Your task to perform on an android device: toggle notification dots Image 0: 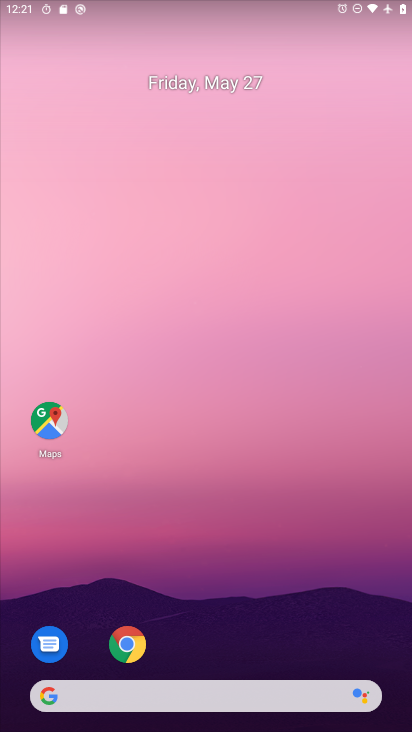
Step 0: drag from (252, 648) to (205, 349)
Your task to perform on an android device: toggle notification dots Image 1: 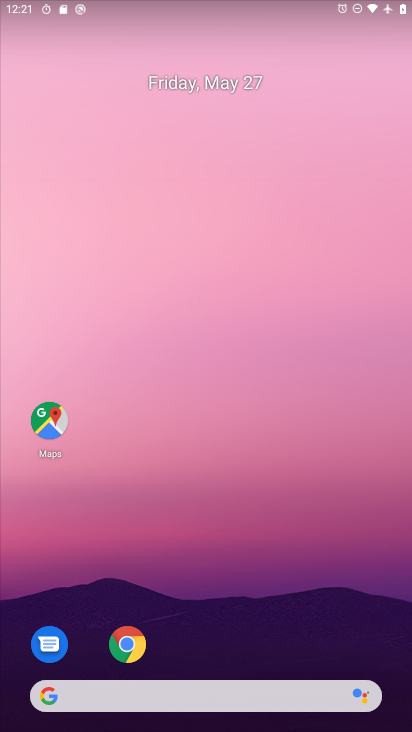
Step 1: drag from (221, 632) to (188, 166)
Your task to perform on an android device: toggle notification dots Image 2: 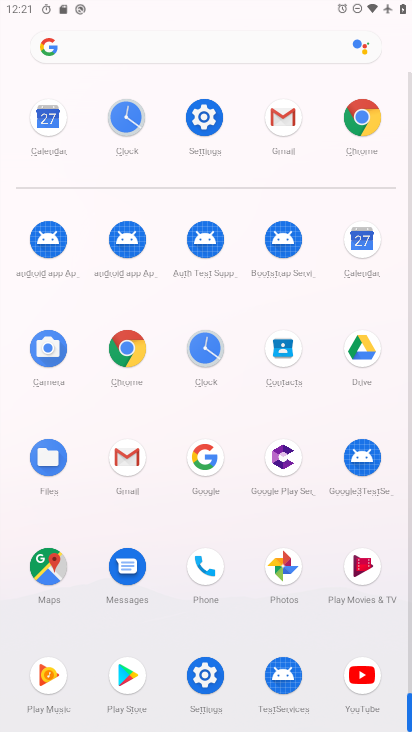
Step 2: click (217, 102)
Your task to perform on an android device: toggle notification dots Image 3: 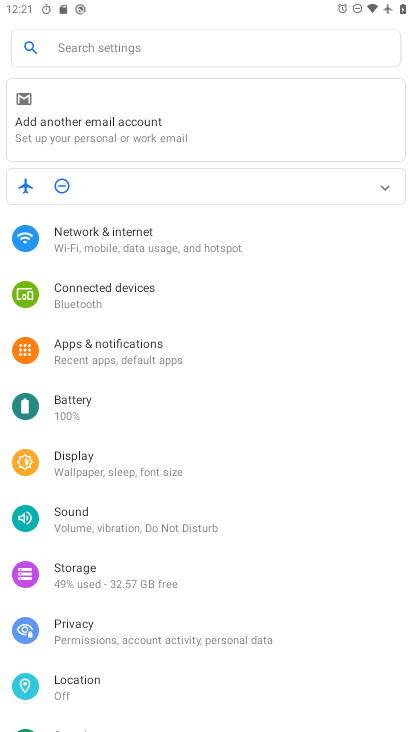
Step 3: click (147, 352)
Your task to perform on an android device: toggle notification dots Image 4: 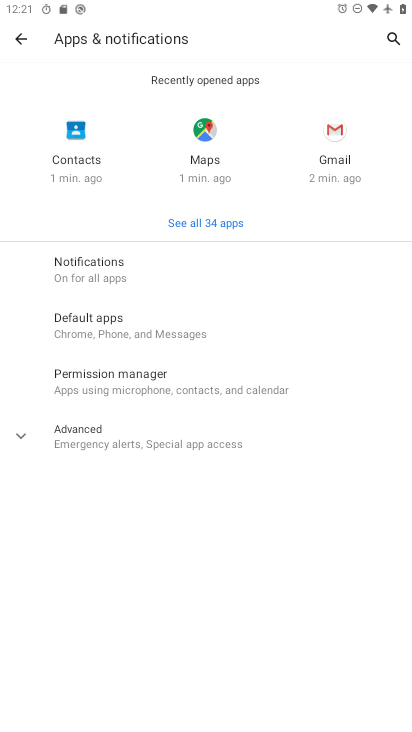
Step 4: click (124, 274)
Your task to perform on an android device: toggle notification dots Image 5: 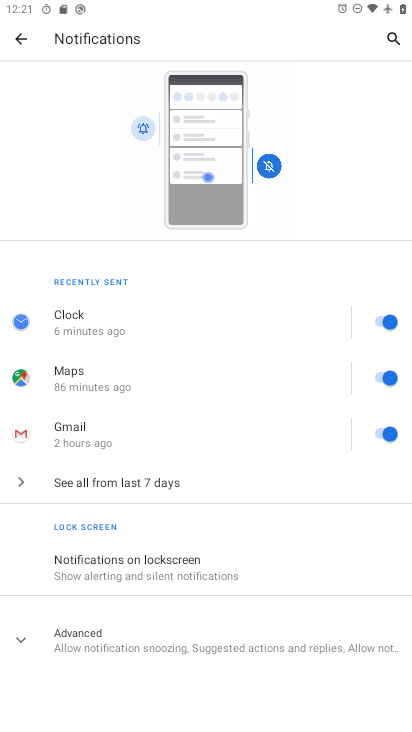
Step 5: drag from (295, 655) to (270, 339)
Your task to perform on an android device: toggle notification dots Image 6: 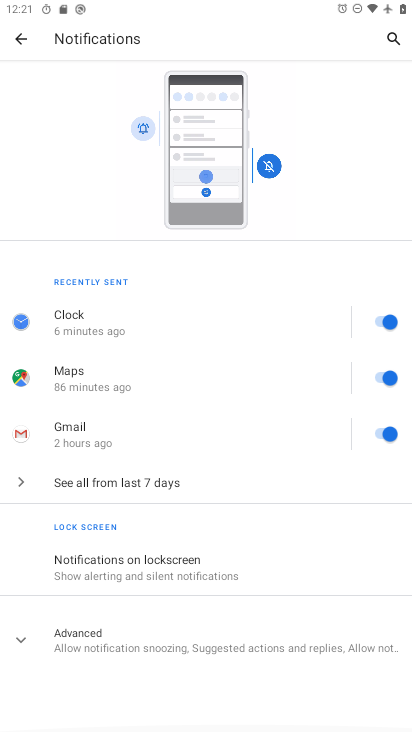
Step 6: click (190, 620)
Your task to perform on an android device: toggle notification dots Image 7: 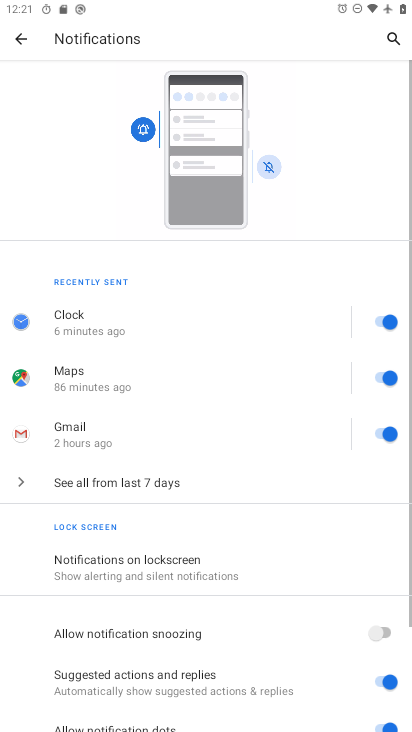
Step 7: drag from (257, 666) to (276, 373)
Your task to perform on an android device: toggle notification dots Image 8: 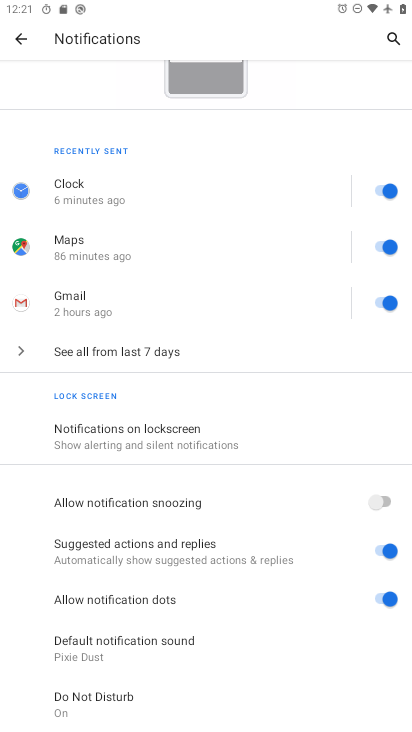
Step 8: click (379, 599)
Your task to perform on an android device: toggle notification dots Image 9: 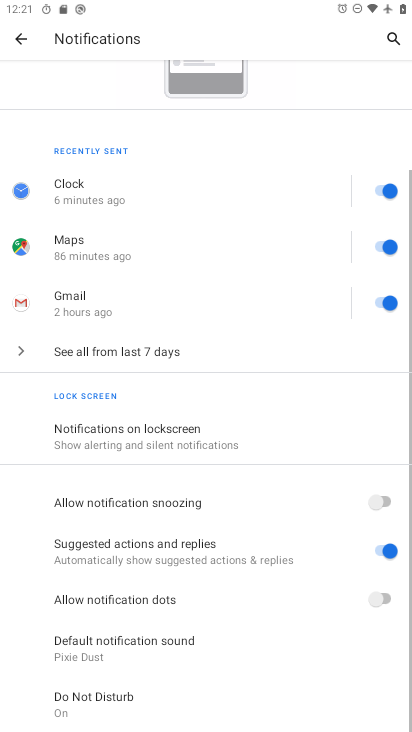
Step 9: task complete